Your task to perform on an android device: Clear the shopping cart on costco. Search for "lenovo thinkpad" on costco, select the first entry, and add it to the cart. Image 0: 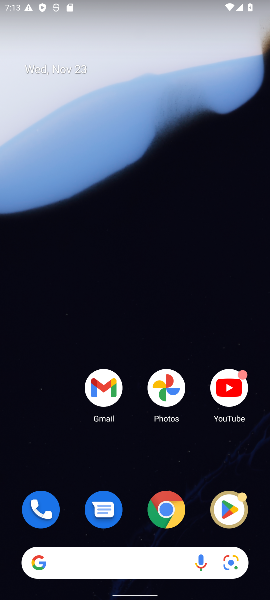
Step 0: click (170, 516)
Your task to perform on an android device: Clear the shopping cart on costco. Search for "lenovo thinkpad" on costco, select the first entry, and add it to the cart. Image 1: 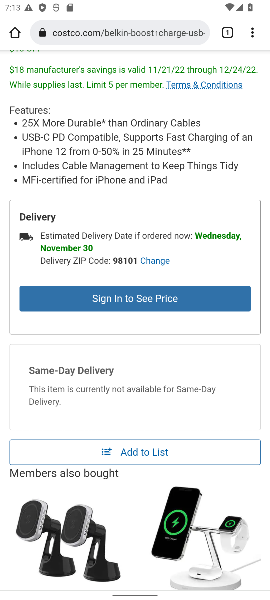
Step 1: drag from (192, 90) to (174, 330)
Your task to perform on an android device: Clear the shopping cart on costco. Search for "lenovo thinkpad" on costco, select the first entry, and add it to the cart. Image 2: 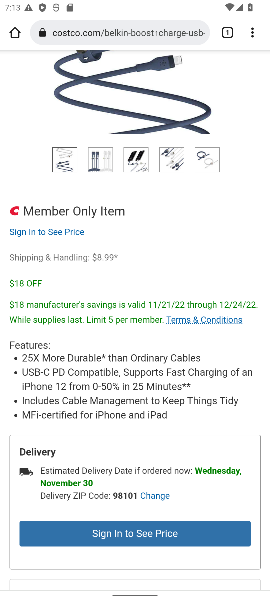
Step 2: drag from (188, 81) to (179, 321)
Your task to perform on an android device: Clear the shopping cart on costco. Search for "lenovo thinkpad" on costco, select the first entry, and add it to the cart. Image 3: 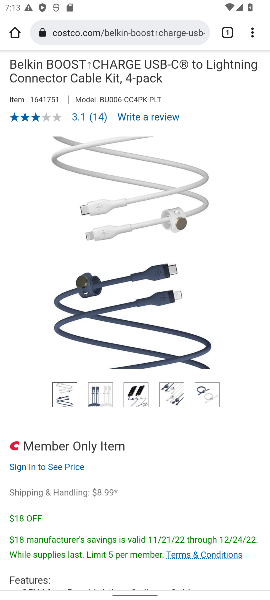
Step 3: drag from (234, 100) to (221, 520)
Your task to perform on an android device: Clear the shopping cart on costco. Search for "lenovo thinkpad" on costco, select the first entry, and add it to the cart. Image 4: 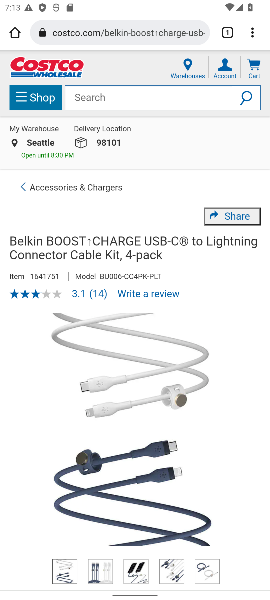
Step 4: click (252, 65)
Your task to perform on an android device: Clear the shopping cart on costco. Search for "lenovo thinkpad" on costco, select the first entry, and add it to the cart. Image 5: 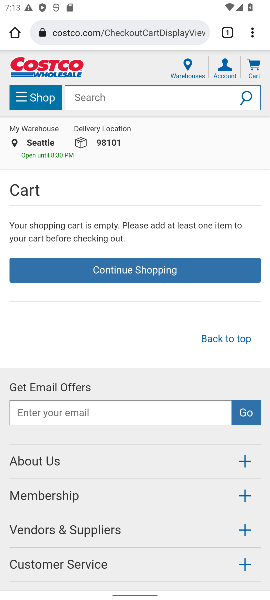
Step 5: click (179, 95)
Your task to perform on an android device: Clear the shopping cart on costco. Search for "lenovo thinkpad" on costco, select the first entry, and add it to the cart. Image 6: 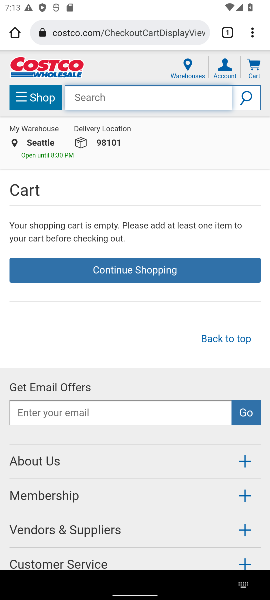
Step 6: type "lenovo thinkpad"
Your task to perform on an android device: Clear the shopping cart on costco. Search for "lenovo thinkpad" on costco, select the first entry, and add it to the cart. Image 7: 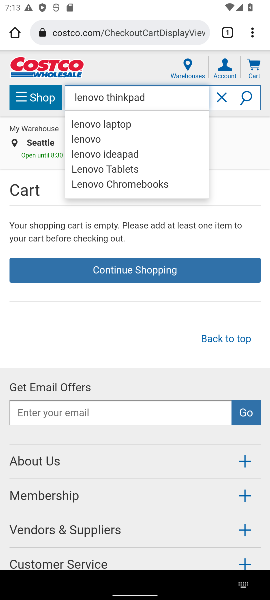
Step 7: press enter
Your task to perform on an android device: Clear the shopping cart on costco. Search for "lenovo thinkpad" on costco, select the first entry, and add it to the cart. Image 8: 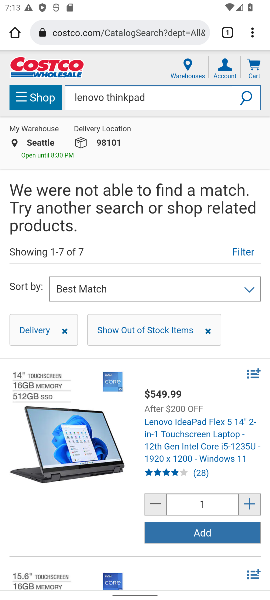
Step 8: drag from (112, 530) to (103, 267)
Your task to perform on an android device: Clear the shopping cart on costco. Search for "lenovo thinkpad" on costco, select the first entry, and add it to the cart. Image 9: 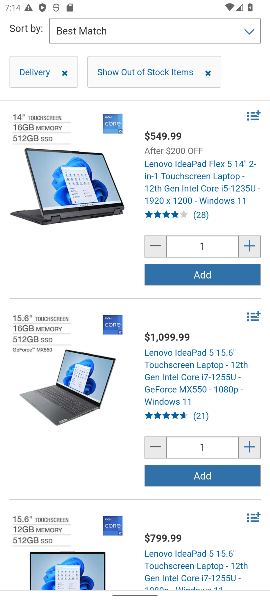
Step 9: click (228, 271)
Your task to perform on an android device: Clear the shopping cart on costco. Search for "lenovo thinkpad" on costco, select the first entry, and add it to the cart. Image 10: 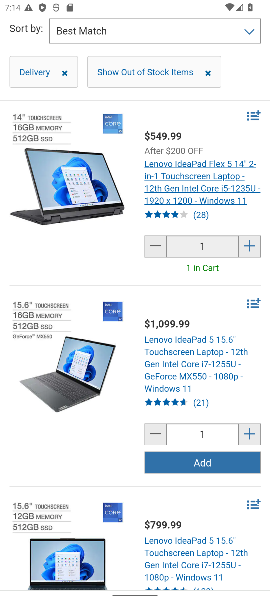
Step 10: task complete